Your task to perform on an android device: Open Wikipedia Image 0: 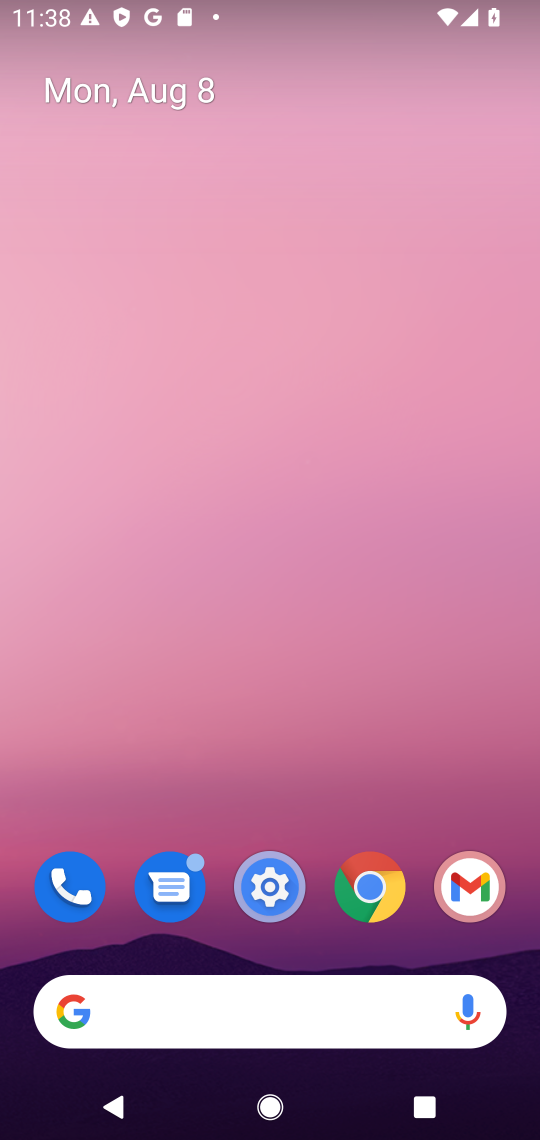
Step 0: click (367, 889)
Your task to perform on an android device: Open Wikipedia Image 1: 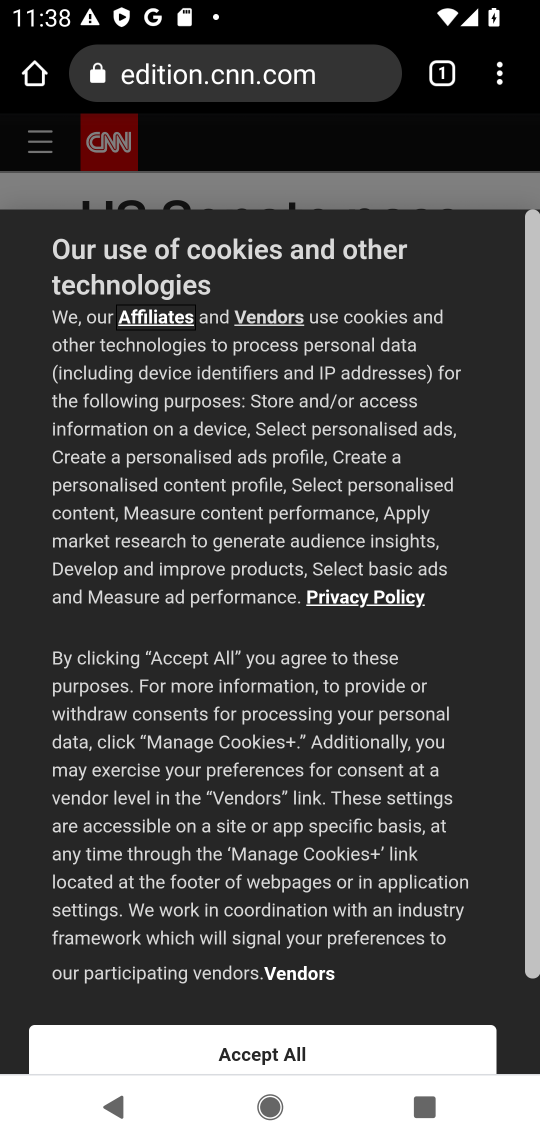
Step 1: click (514, 67)
Your task to perform on an android device: Open Wikipedia Image 2: 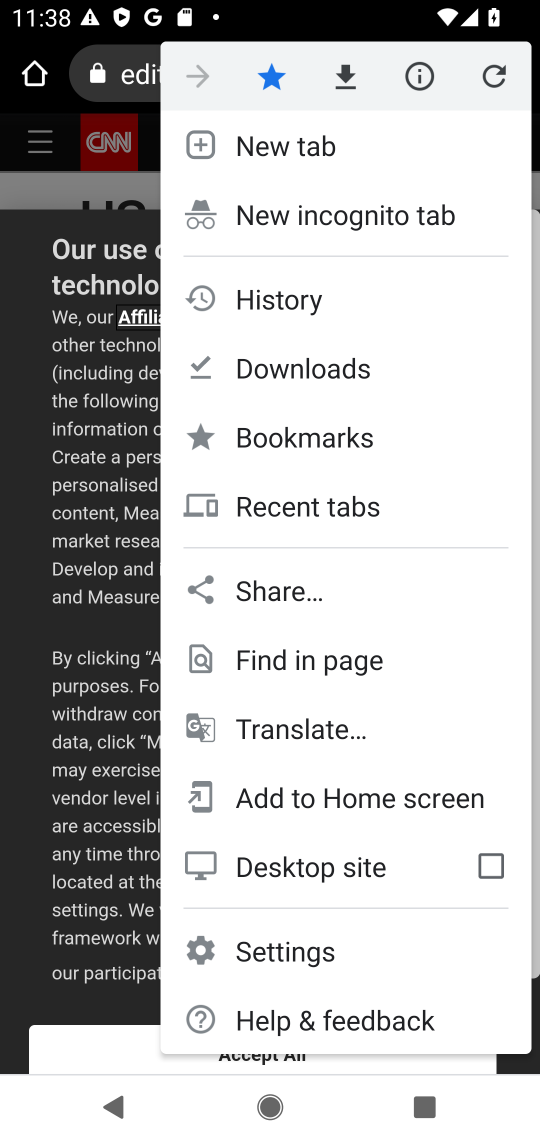
Step 2: click (305, 138)
Your task to perform on an android device: Open Wikipedia Image 3: 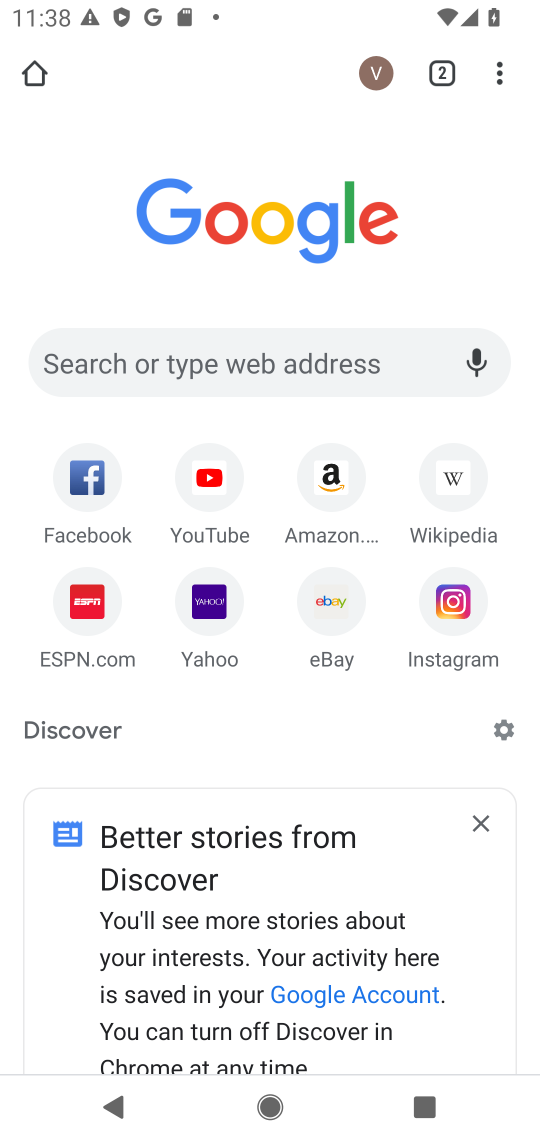
Step 3: click (456, 481)
Your task to perform on an android device: Open Wikipedia Image 4: 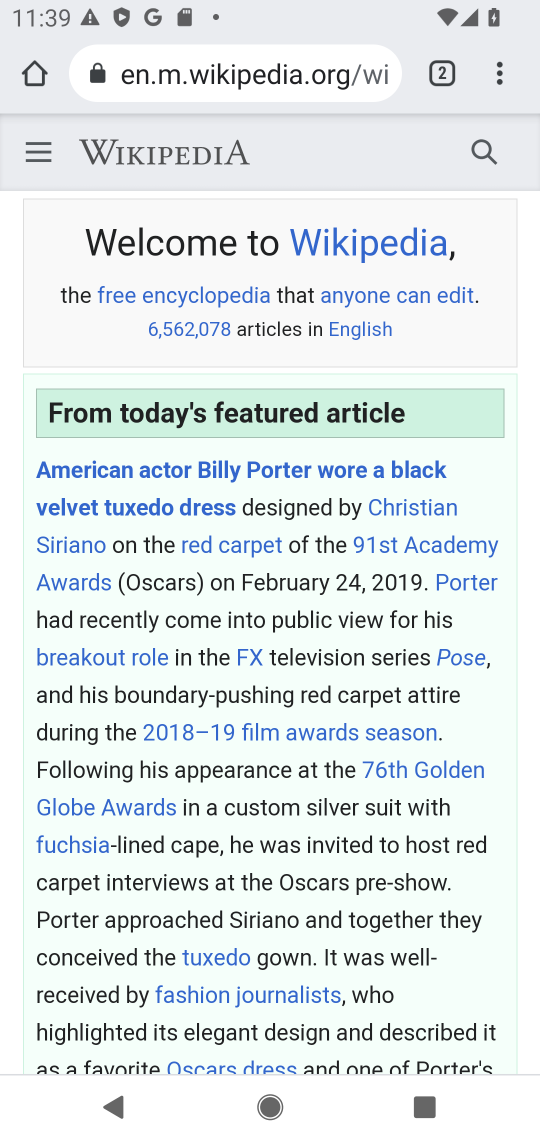
Step 4: click (468, 117)
Your task to perform on an android device: Open Wikipedia Image 5: 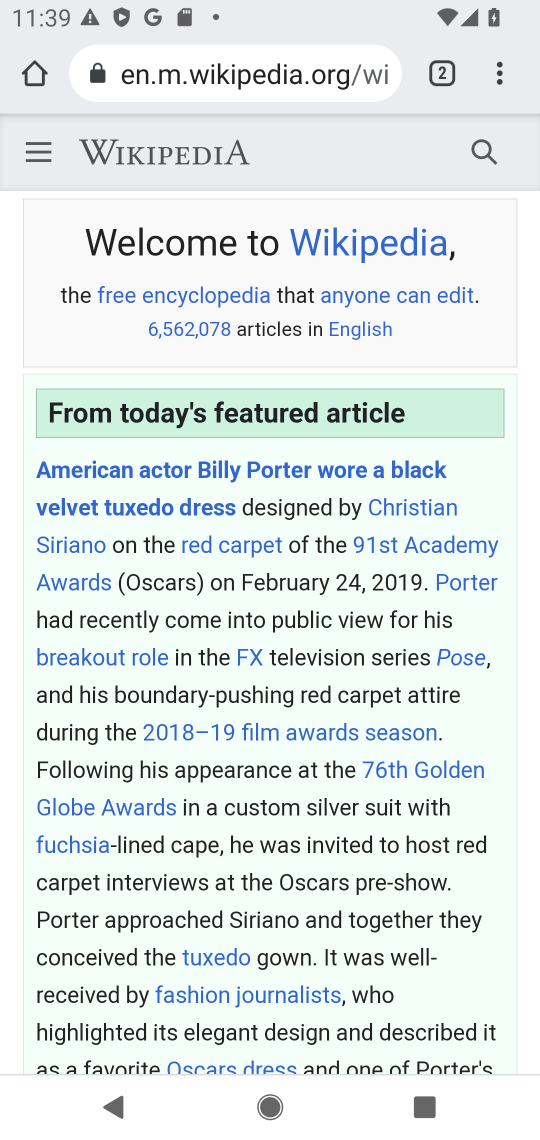
Step 5: task complete